Your task to perform on an android device: Go to Wikipedia Image 0: 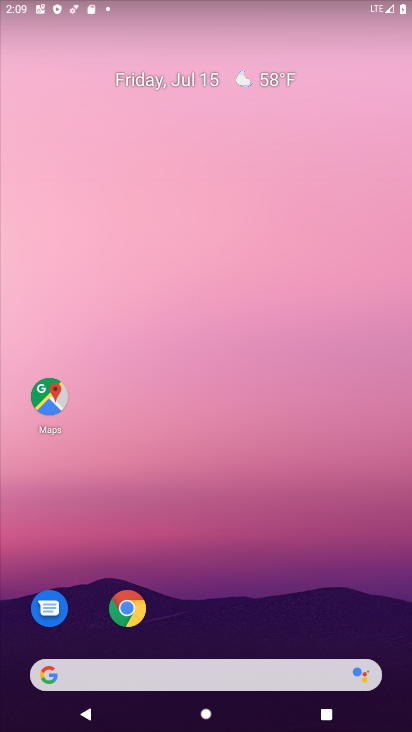
Step 0: drag from (211, 572) to (202, 148)
Your task to perform on an android device: Go to Wikipedia Image 1: 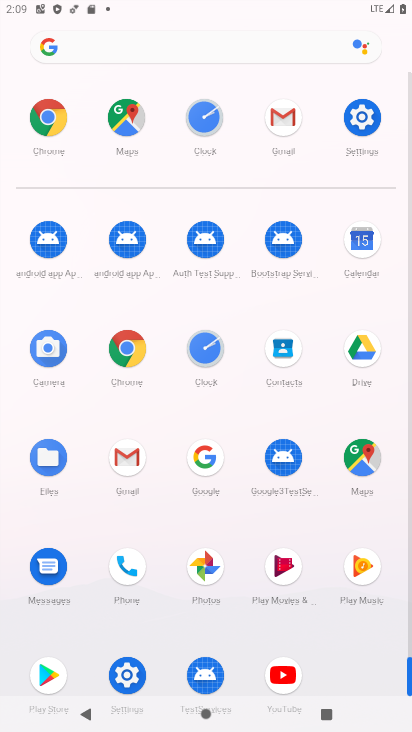
Step 1: click (117, 347)
Your task to perform on an android device: Go to Wikipedia Image 2: 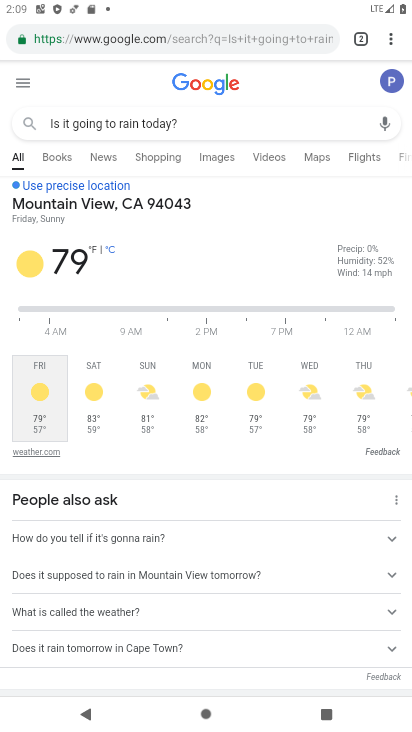
Step 2: drag from (395, 34) to (255, 65)
Your task to perform on an android device: Go to Wikipedia Image 3: 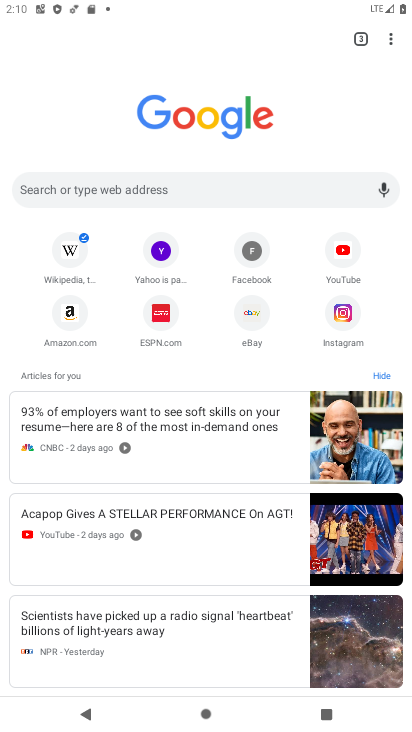
Step 3: click (67, 236)
Your task to perform on an android device: Go to Wikipedia Image 4: 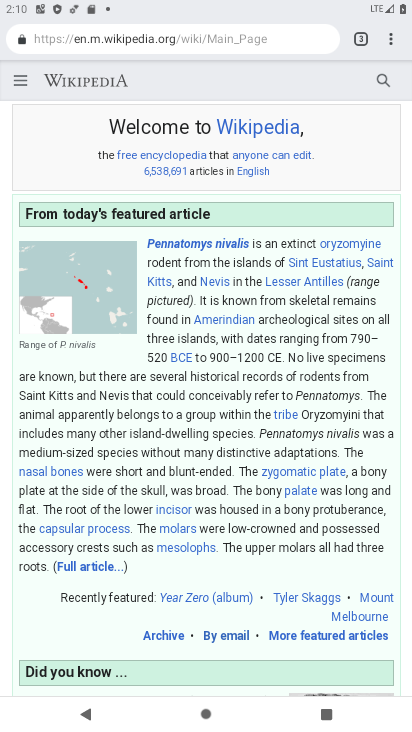
Step 4: task complete